Your task to perform on an android device: Go to ESPN.com Image 0: 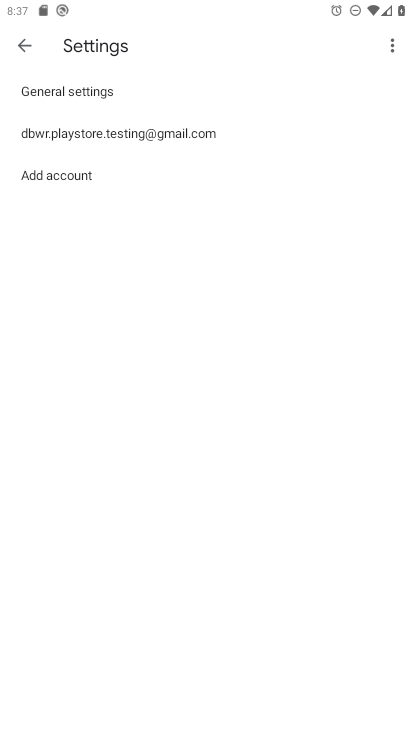
Step 0: press home button
Your task to perform on an android device: Go to ESPN.com Image 1: 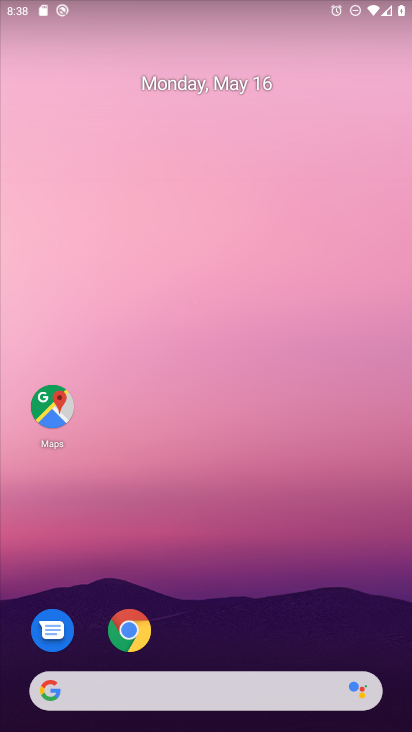
Step 1: click (132, 636)
Your task to perform on an android device: Go to ESPN.com Image 2: 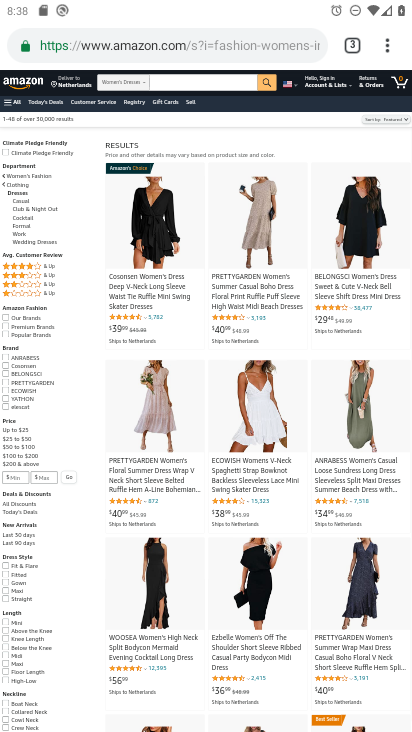
Step 2: click (341, 37)
Your task to perform on an android device: Go to ESPN.com Image 3: 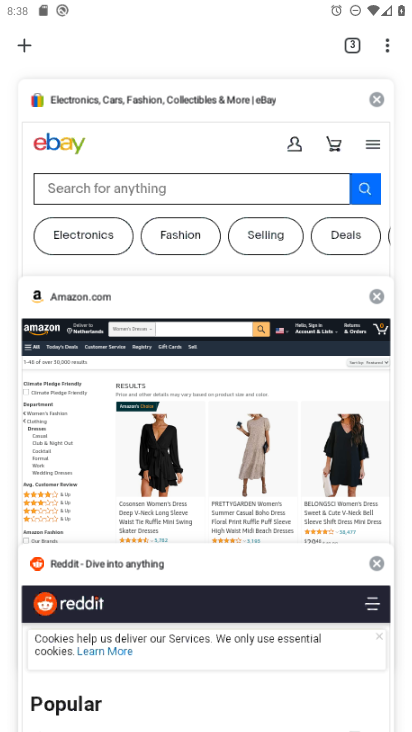
Step 3: click (19, 35)
Your task to perform on an android device: Go to ESPN.com Image 4: 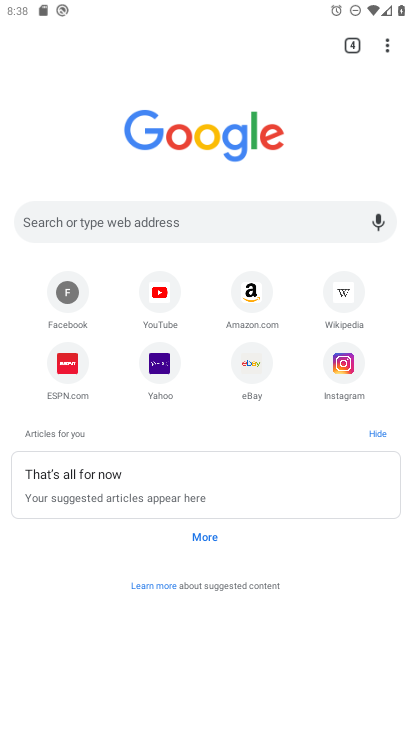
Step 4: click (65, 359)
Your task to perform on an android device: Go to ESPN.com Image 5: 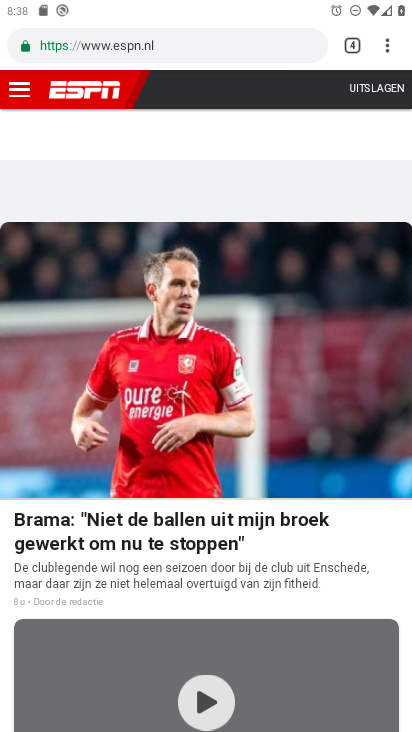
Step 5: task complete